Your task to perform on an android device: toggle data saver in the chrome app Image 0: 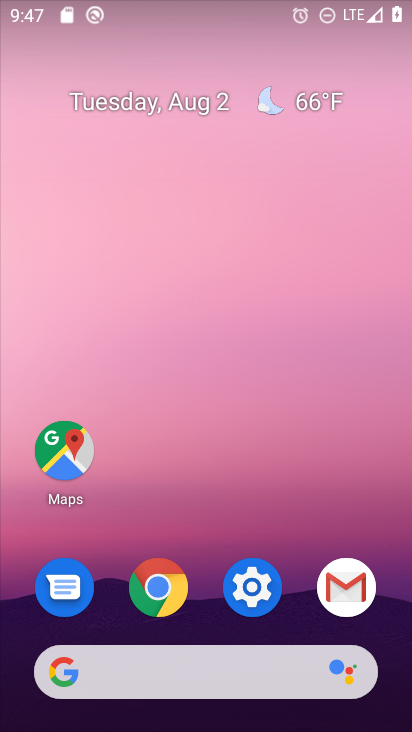
Step 0: click (146, 593)
Your task to perform on an android device: toggle data saver in the chrome app Image 1: 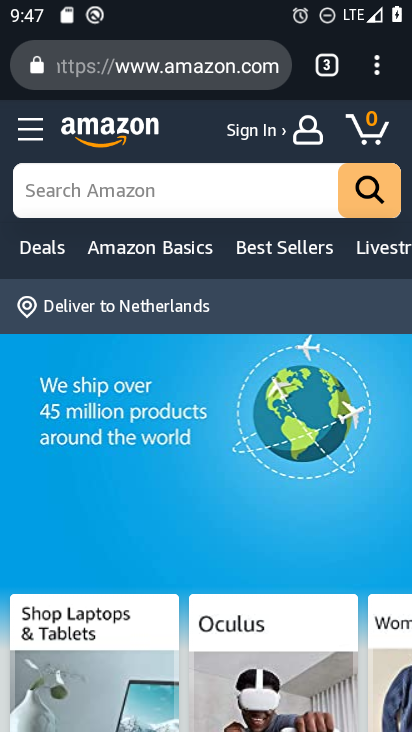
Step 1: click (379, 66)
Your task to perform on an android device: toggle data saver in the chrome app Image 2: 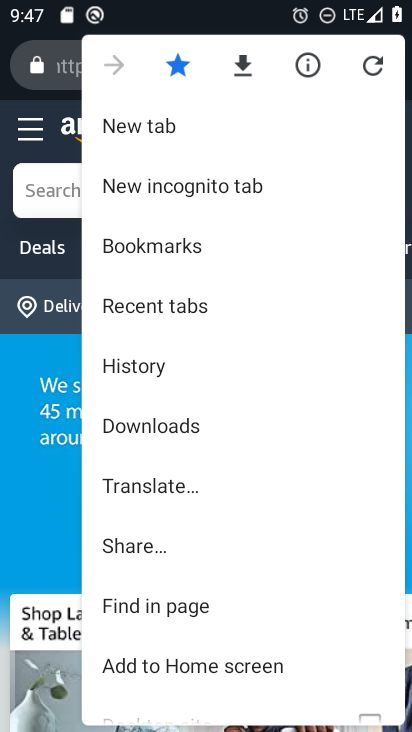
Step 2: drag from (191, 640) to (193, 412)
Your task to perform on an android device: toggle data saver in the chrome app Image 3: 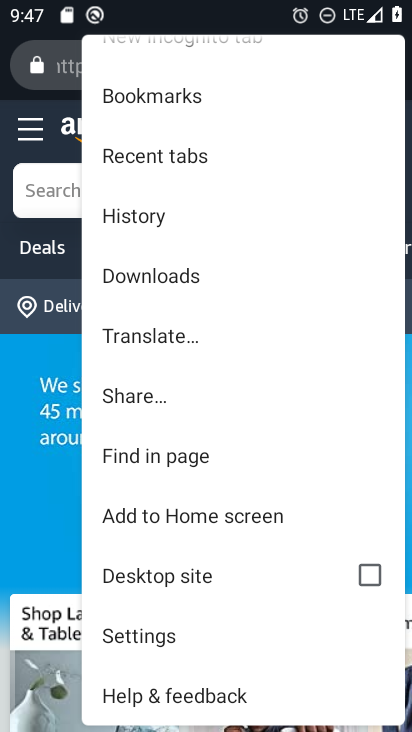
Step 3: click (166, 635)
Your task to perform on an android device: toggle data saver in the chrome app Image 4: 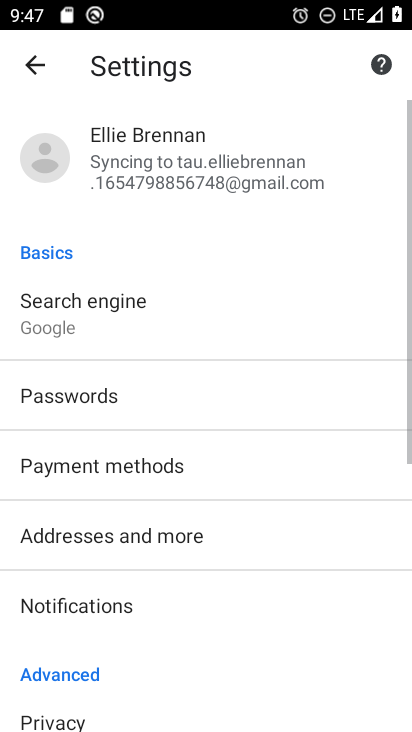
Step 4: drag from (141, 632) to (159, 407)
Your task to perform on an android device: toggle data saver in the chrome app Image 5: 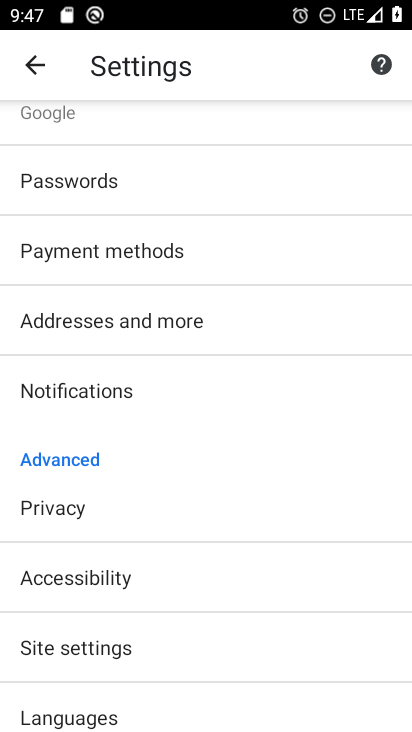
Step 5: drag from (139, 651) to (150, 426)
Your task to perform on an android device: toggle data saver in the chrome app Image 6: 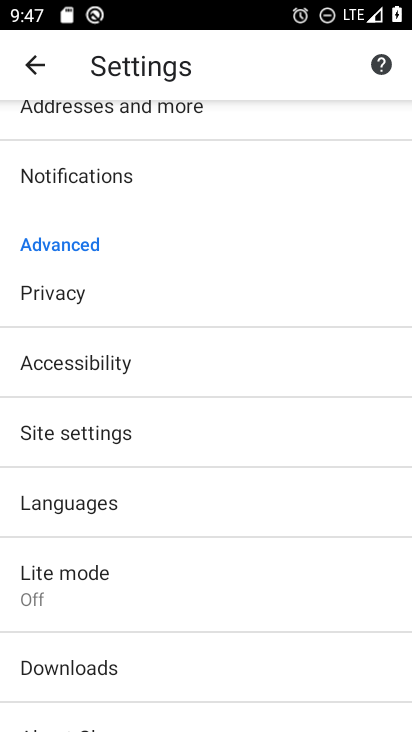
Step 6: click (98, 572)
Your task to perform on an android device: toggle data saver in the chrome app Image 7: 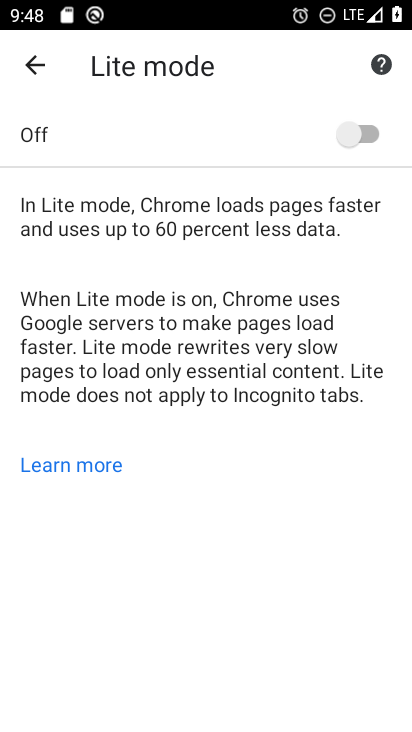
Step 7: task complete